Your task to perform on an android device: toggle notification dots Image 0: 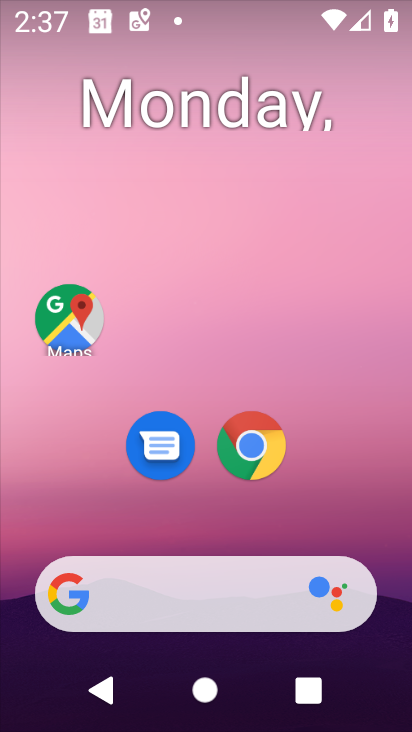
Step 0: drag from (329, 428) to (339, 121)
Your task to perform on an android device: toggle notification dots Image 1: 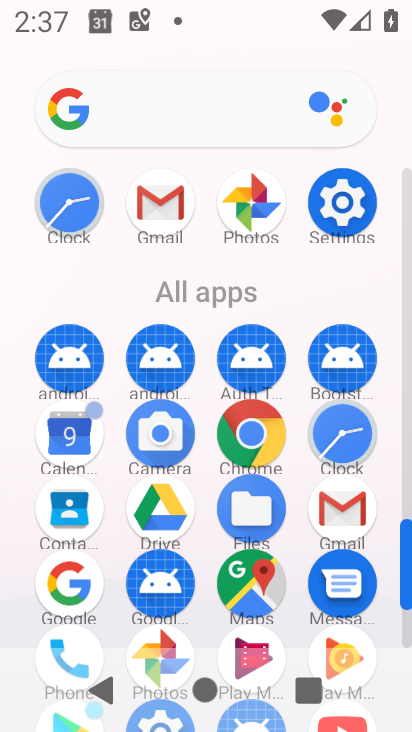
Step 1: click (343, 193)
Your task to perform on an android device: toggle notification dots Image 2: 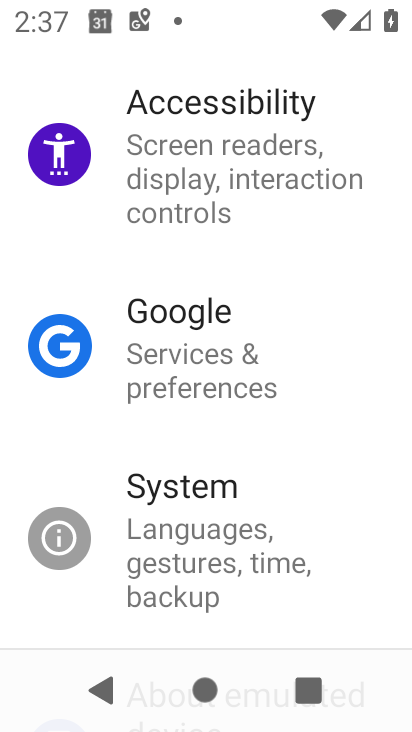
Step 2: drag from (261, 512) to (260, 154)
Your task to perform on an android device: toggle notification dots Image 3: 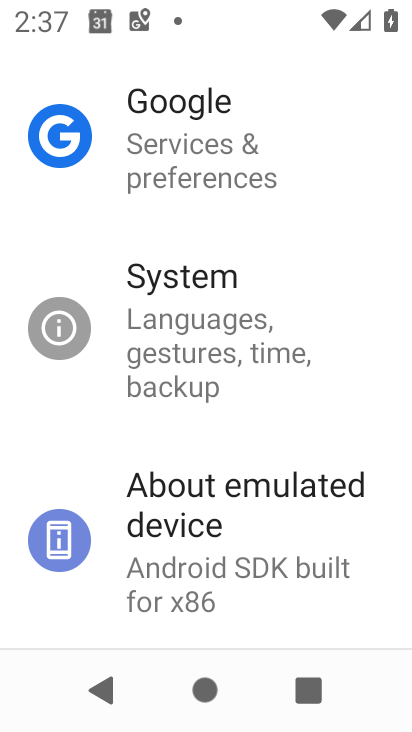
Step 3: drag from (276, 302) to (320, 566)
Your task to perform on an android device: toggle notification dots Image 4: 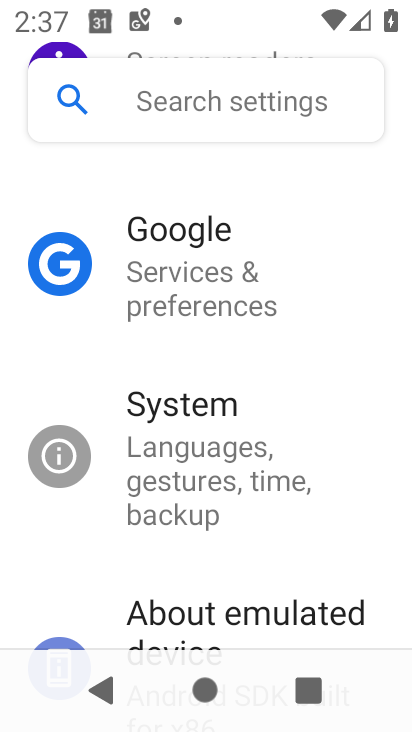
Step 4: drag from (291, 249) to (326, 591)
Your task to perform on an android device: toggle notification dots Image 5: 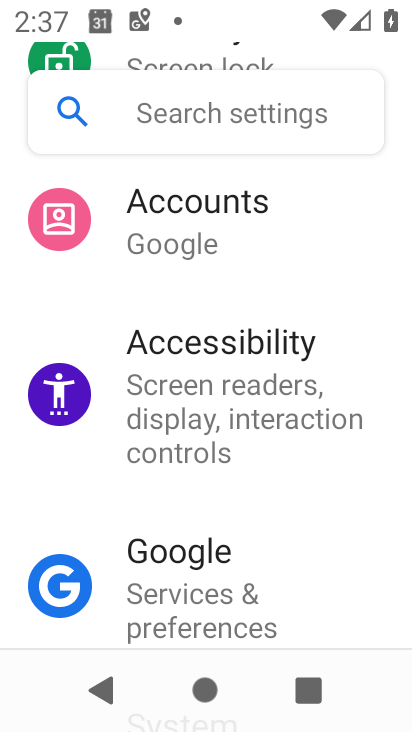
Step 5: drag from (327, 314) to (345, 629)
Your task to perform on an android device: toggle notification dots Image 6: 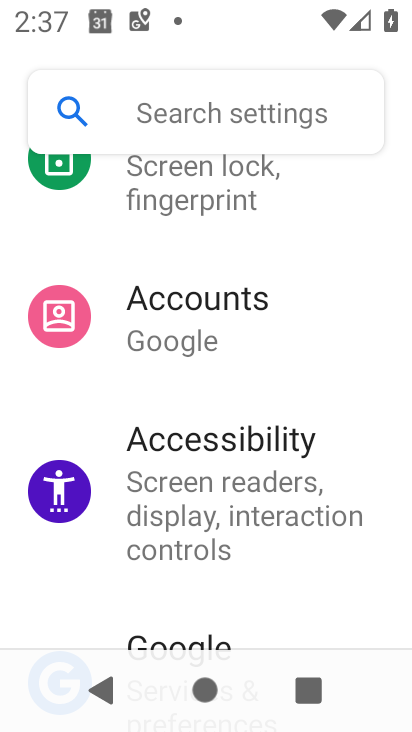
Step 6: drag from (317, 327) to (342, 607)
Your task to perform on an android device: toggle notification dots Image 7: 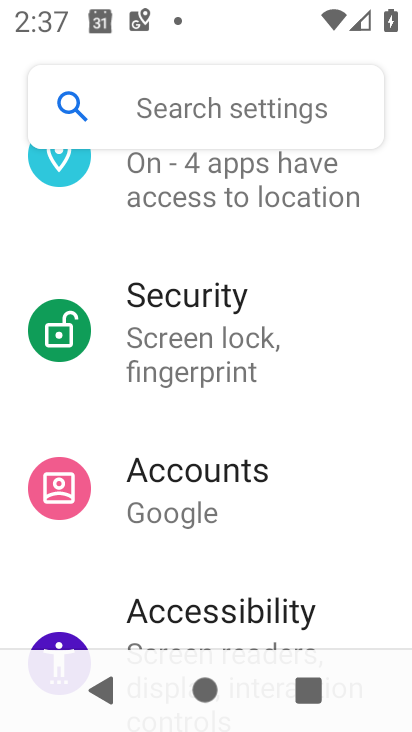
Step 7: drag from (312, 327) to (286, 655)
Your task to perform on an android device: toggle notification dots Image 8: 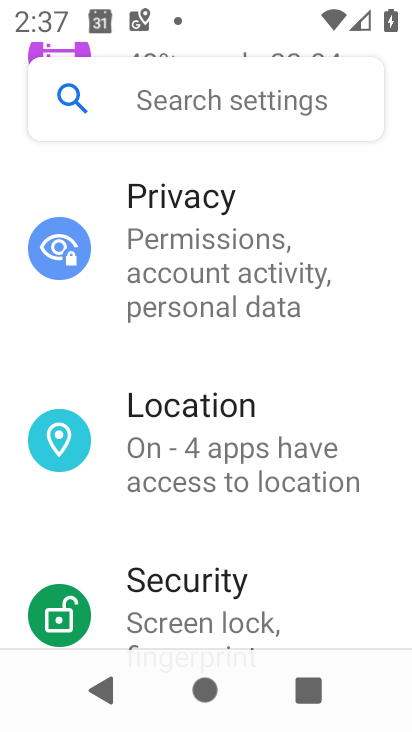
Step 8: drag from (246, 363) to (246, 642)
Your task to perform on an android device: toggle notification dots Image 9: 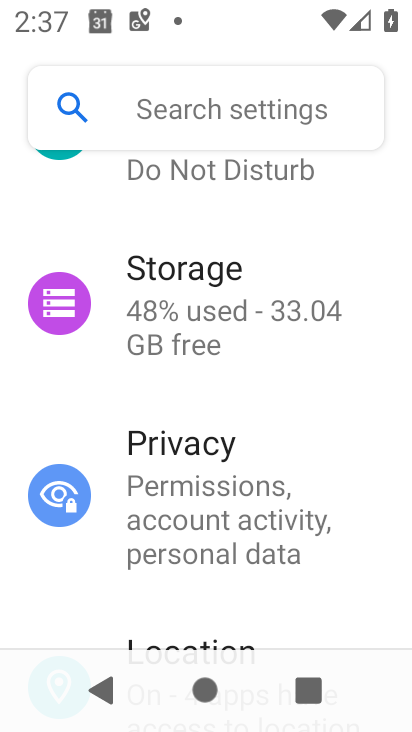
Step 9: drag from (243, 327) to (266, 561)
Your task to perform on an android device: toggle notification dots Image 10: 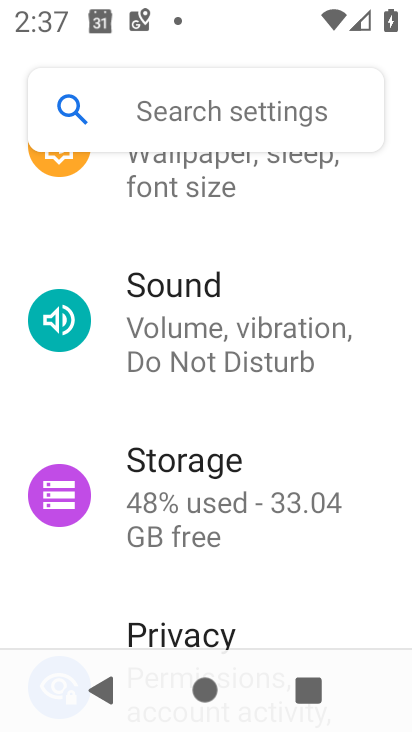
Step 10: drag from (248, 298) to (249, 598)
Your task to perform on an android device: toggle notification dots Image 11: 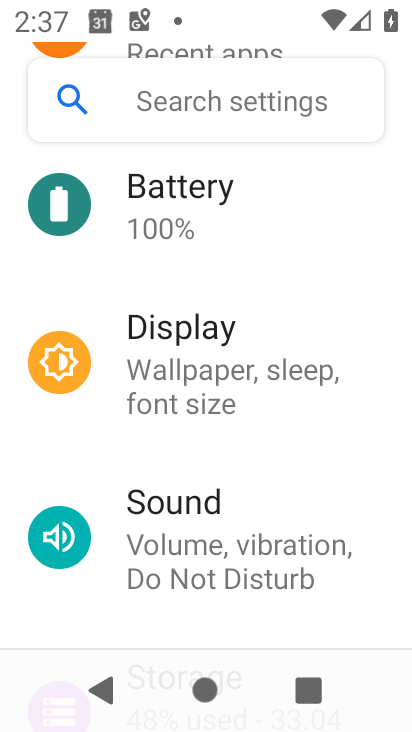
Step 11: drag from (253, 346) to (254, 540)
Your task to perform on an android device: toggle notification dots Image 12: 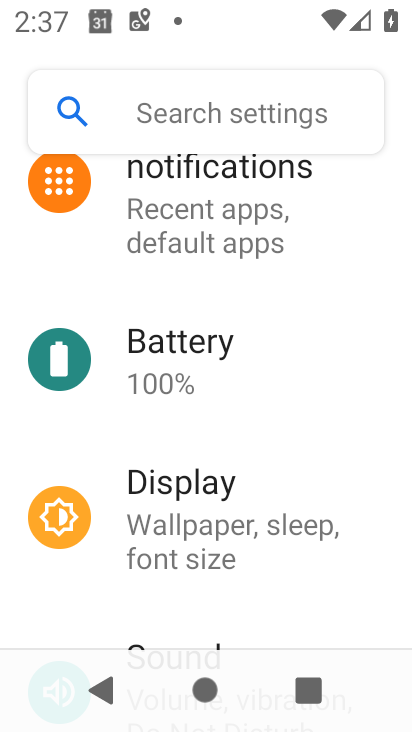
Step 12: click (247, 259)
Your task to perform on an android device: toggle notification dots Image 13: 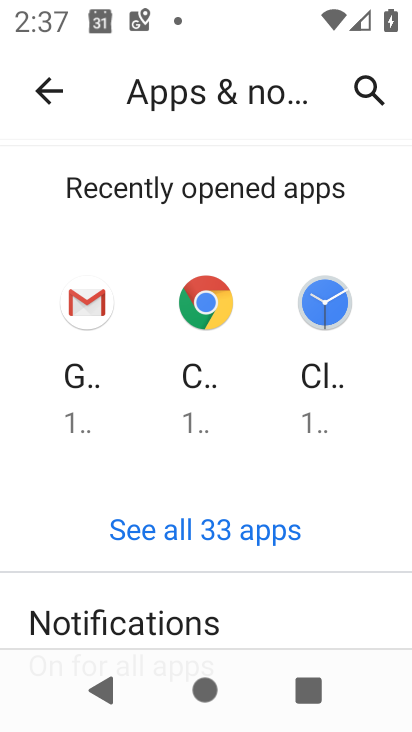
Step 13: drag from (265, 542) to (271, 144)
Your task to perform on an android device: toggle notification dots Image 14: 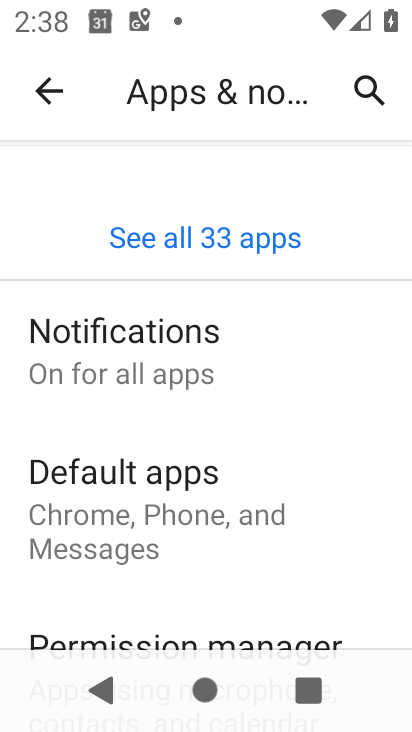
Step 14: click (195, 364)
Your task to perform on an android device: toggle notification dots Image 15: 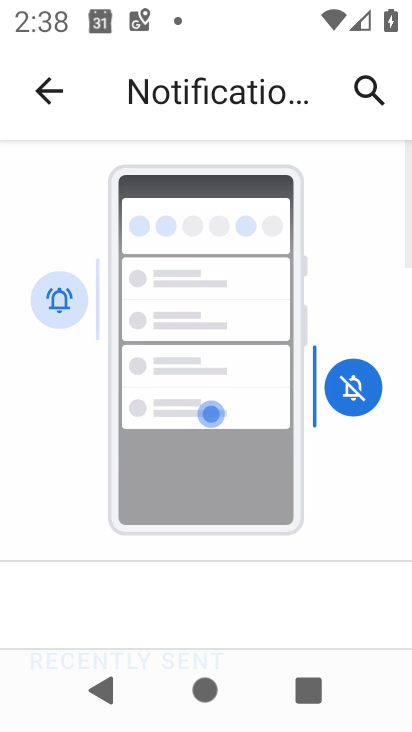
Step 15: drag from (303, 530) to (303, 129)
Your task to perform on an android device: toggle notification dots Image 16: 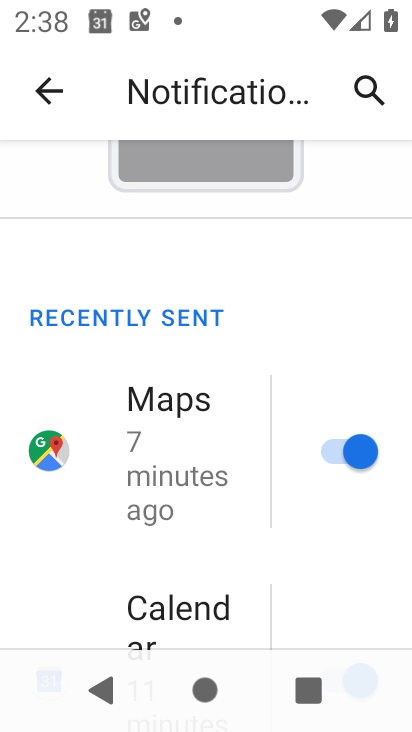
Step 16: drag from (238, 566) to (238, 188)
Your task to perform on an android device: toggle notification dots Image 17: 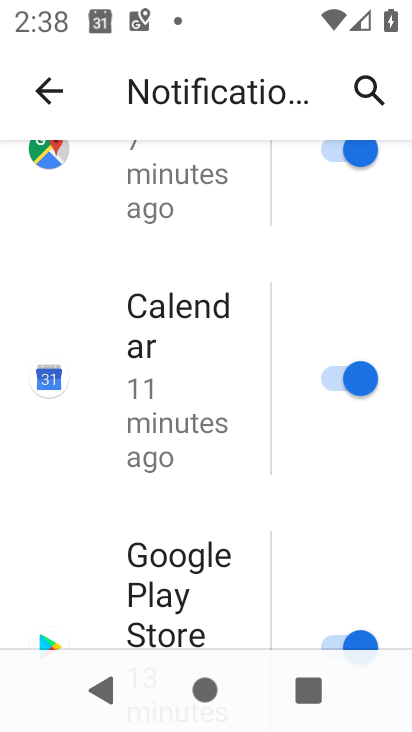
Step 17: drag from (267, 574) to (269, 205)
Your task to perform on an android device: toggle notification dots Image 18: 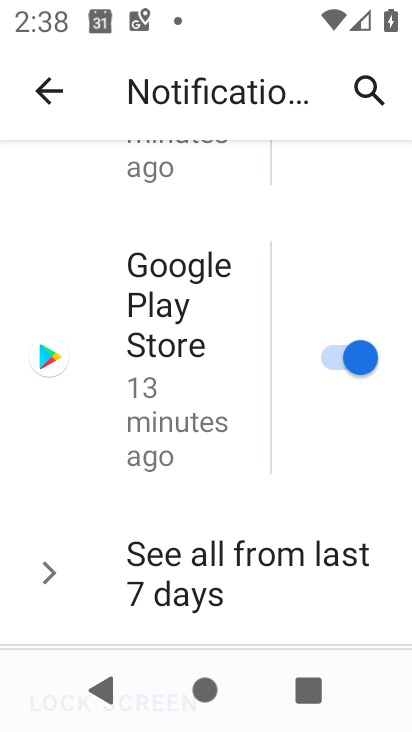
Step 18: drag from (270, 555) to (272, 187)
Your task to perform on an android device: toggle notification dots Image 19: 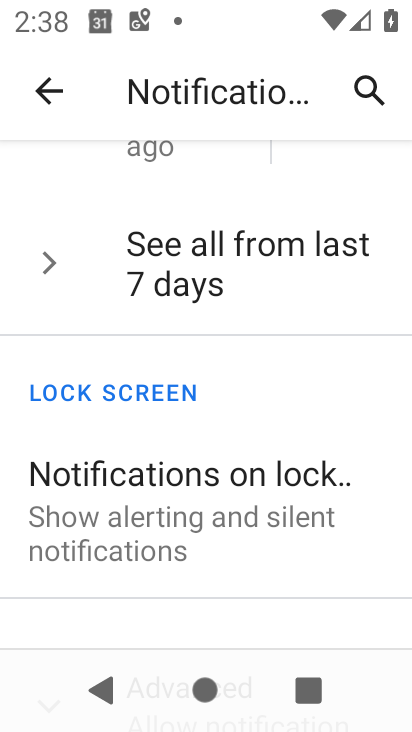
Step 19: drag from (268, 550) to (269, 131)
Your task to perform on an android device: toggle notification dots Image 20: 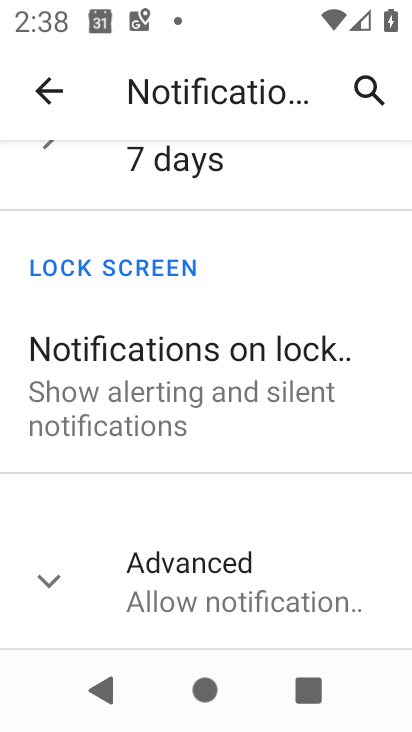
Step 20: click (61, 588)
Your task to perform on an android device: toggle notification dots Image 21: 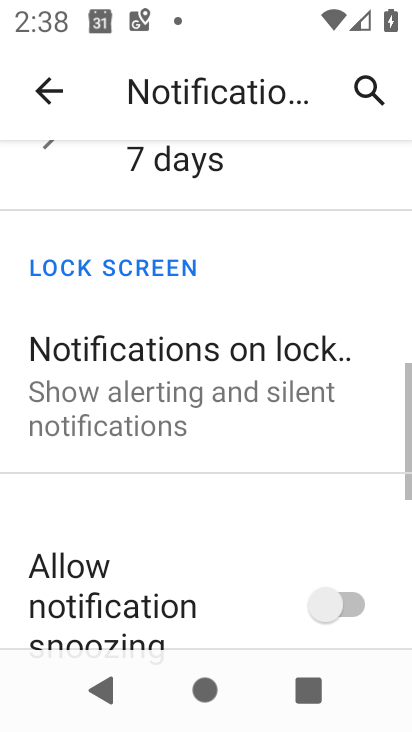
Step 21: drag from (279, 587) to (285, 179)
Your task to perform on an android device: toggle notification dots Image 22: 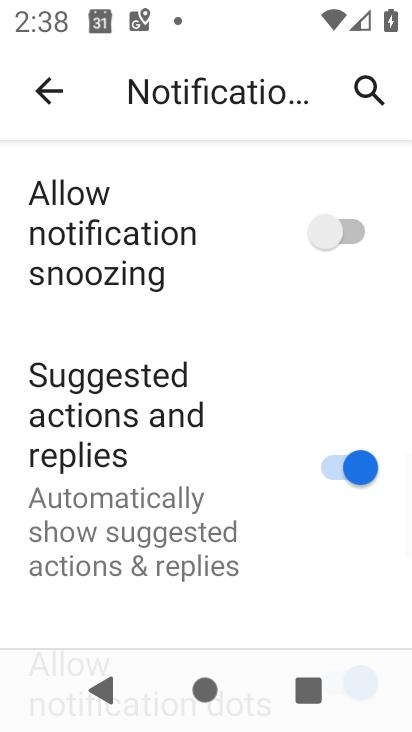
Step 22: drag from (283, 590) to (303, 192)
Your task to perform on an android device: toggle notification dots Image 23: 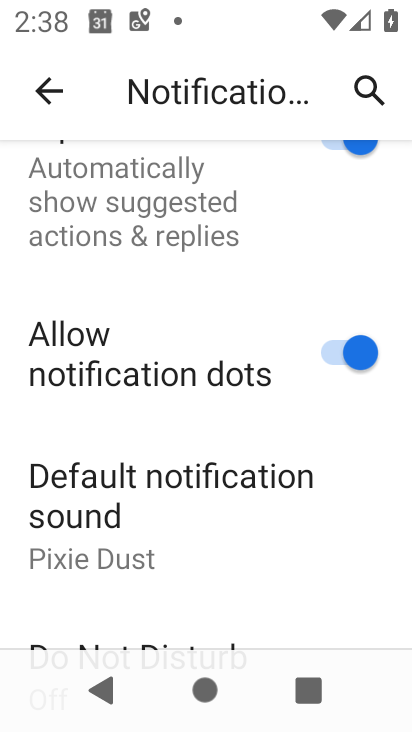
Step 23: click (350, 353)
Your task to perform on an android device: toggle notification dots Image 24: 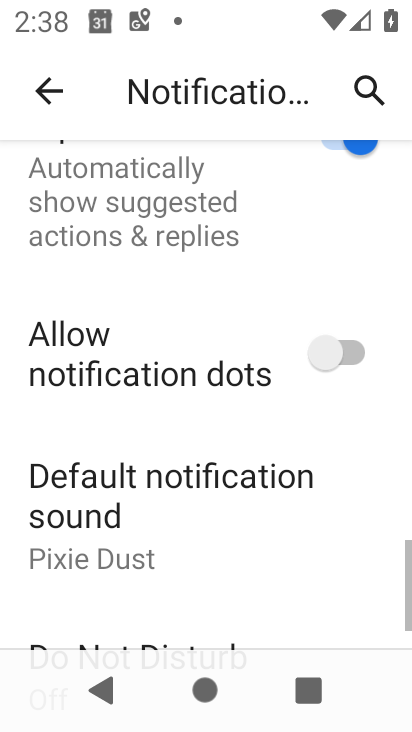
Step 24: task complete